Your task to perform on an android device: turn off wifi Image 0: 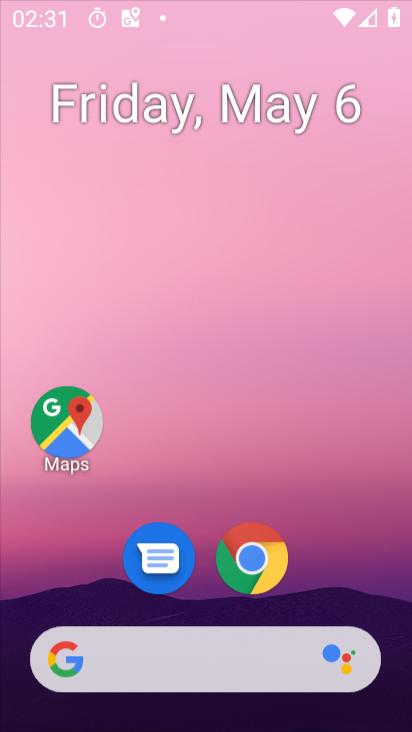
Step 0: click (282, 44)
Your task to perform on an android device: turn off wifi Image 1: 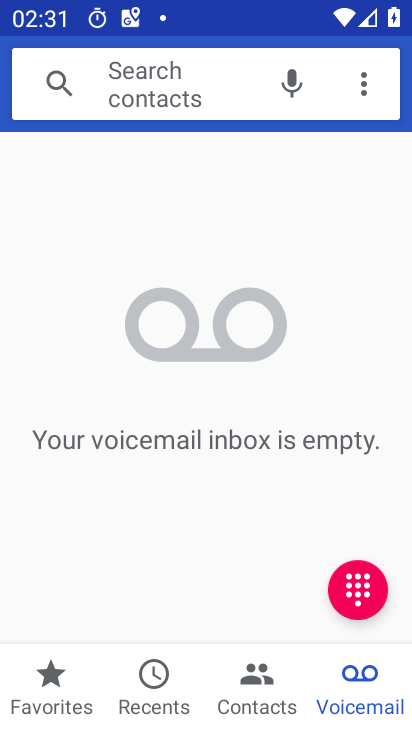
Step 1: press home button
Your task to perform on an android device: turn off wifi Image 2: 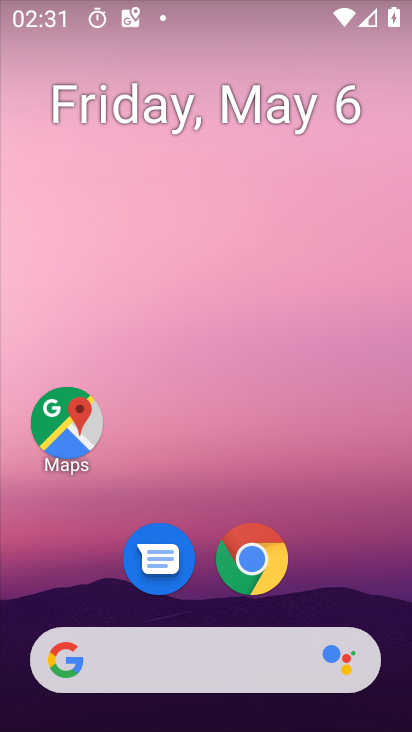
Step 2: drag from (187, 616) to (187, 41)
Your task to perform on an android device: turn off wifi Image 3: 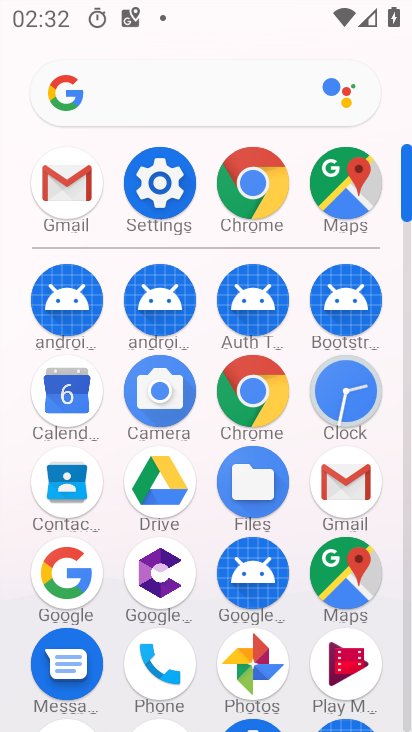
Step 3: click (161, 197)
Your task to perform on an android device: turn off wifi Image 4: 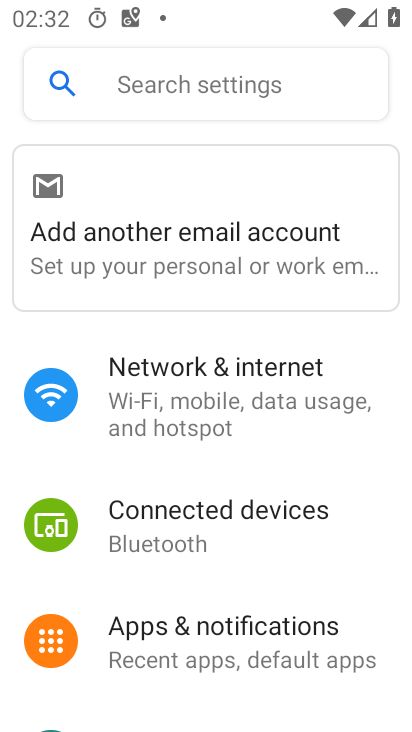
Step 4: click (184, 399)
Your task to perform on an android device: turn off wifi Image 5: 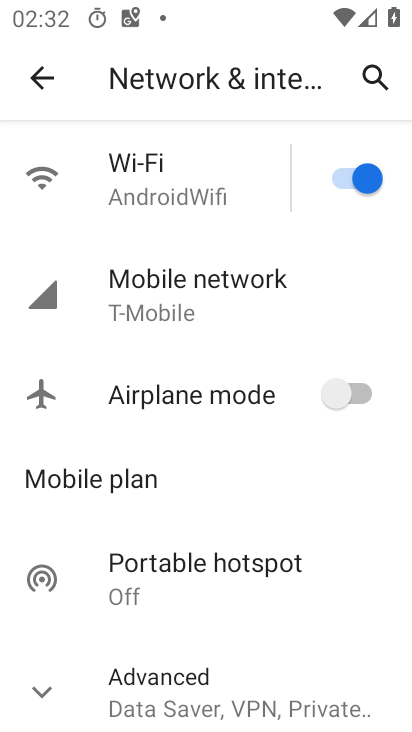
Step 5: click (350, 185)
Your task to perform on an android device: turn off wifi Image 6: 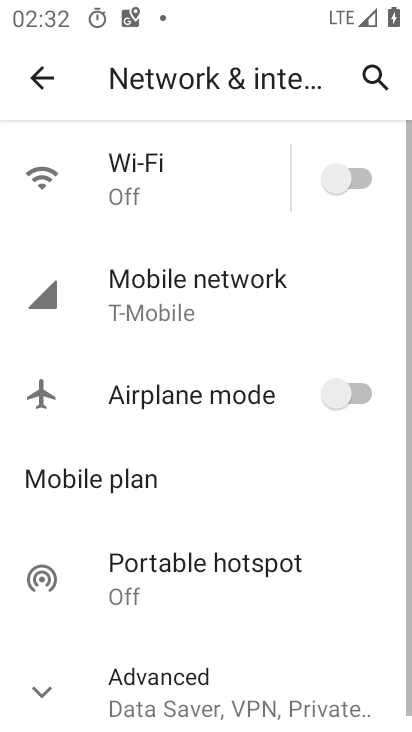
Step 6: task complete